Your task to perform on an android device: Go to Reddit.com Image 0: 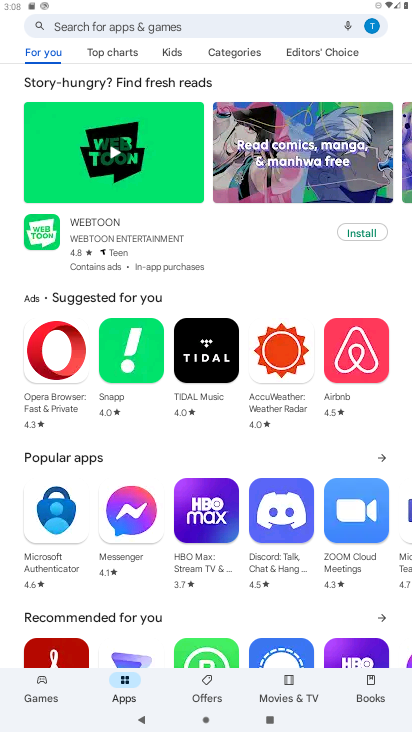
Step 0: press home button
Your task to perform on an android device: Go to Reddit.com Image 1: 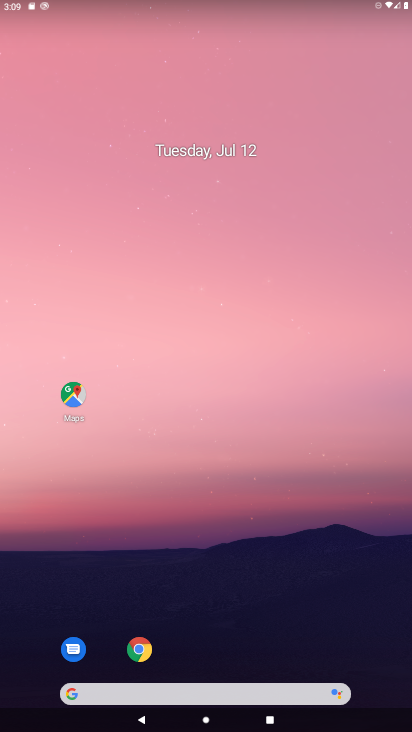
Step 1: drag from (289, 631) to (232, 53)
Your task to perform on an android device: Go to Reddit.com Image 2: 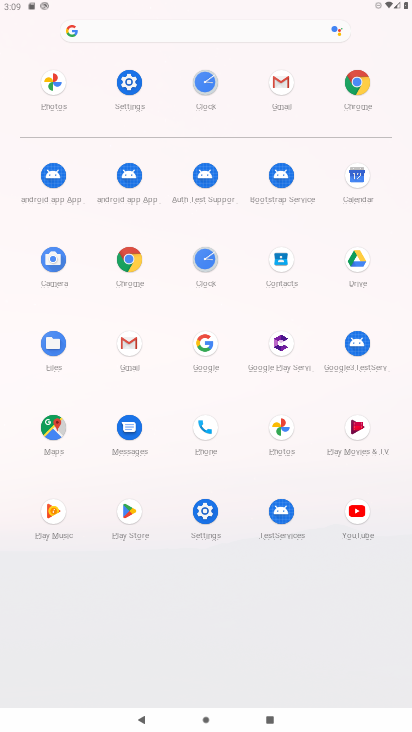
Step 2: click (347, 90)
Your task to perform on an android device: Go to Reddit.com Image 3: 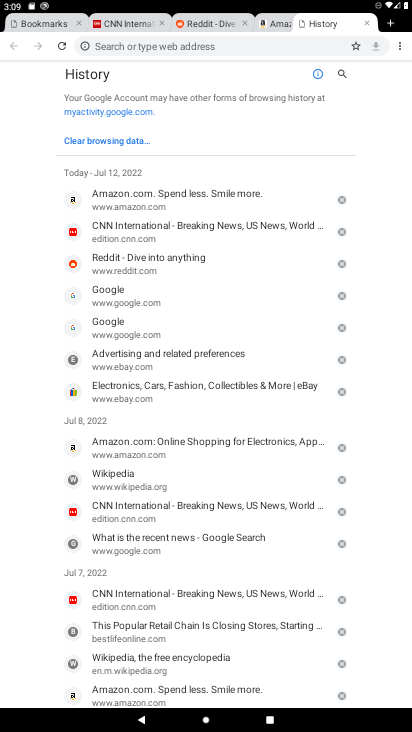
Step 3: click (138, 259)
Your task to perform on an android device: Go to Reddit.com Image 4: 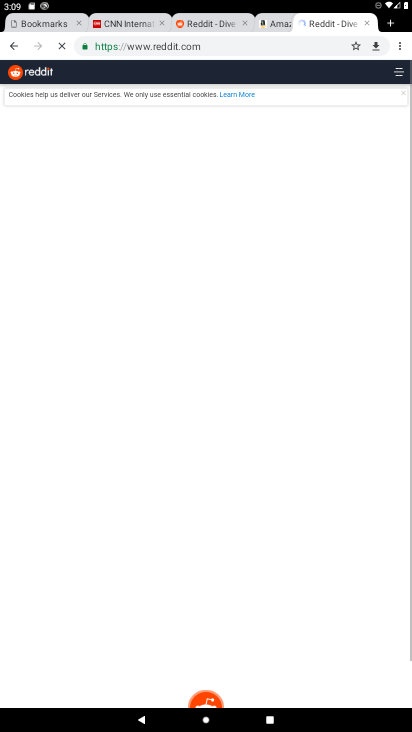
Step 4: task complete